Your task to perform on an android device: Open wifi settings Image 0: 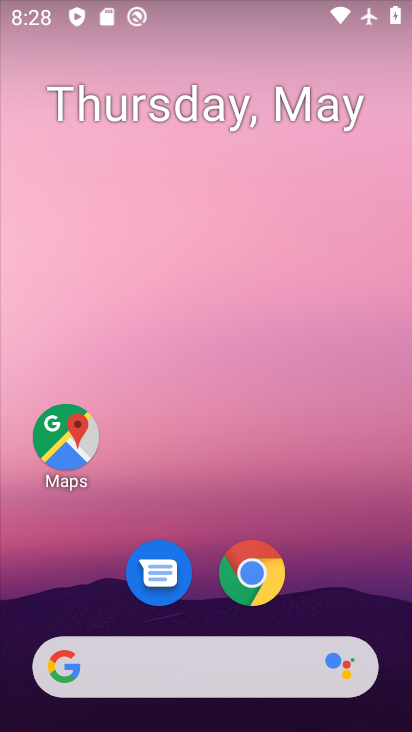
Step 0: drag from (335, 598) to (362, 65)
Your task to perform on an android device: Open wifi settings Image 1: 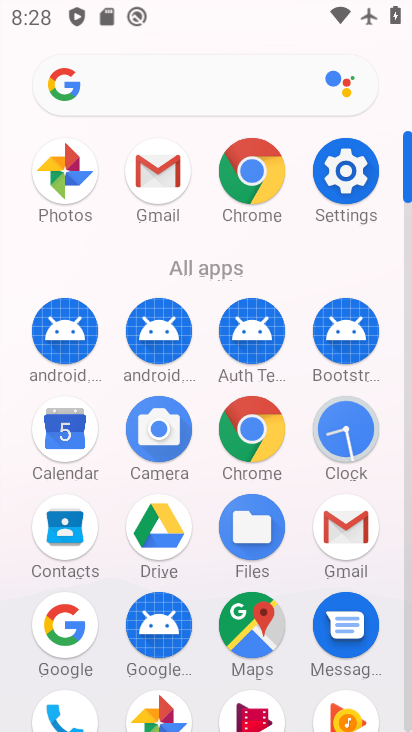
Step 1: click (365, 164)
Your task to perform on an android device: Open wifi settings Image 2: 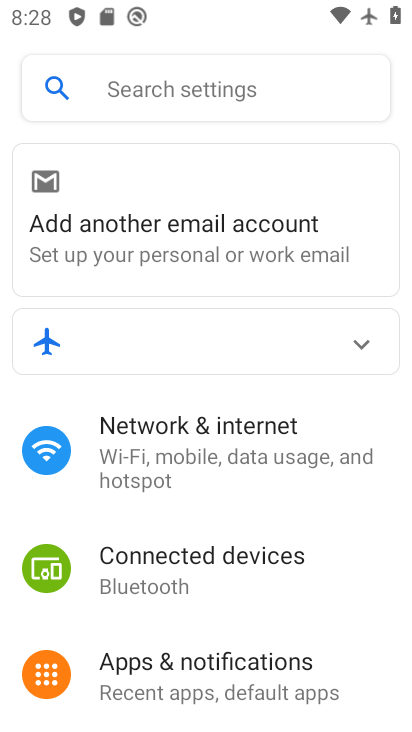
Step 2: click (261, 455)
Your task to perform on an android device: Open wifi settings Image 3: 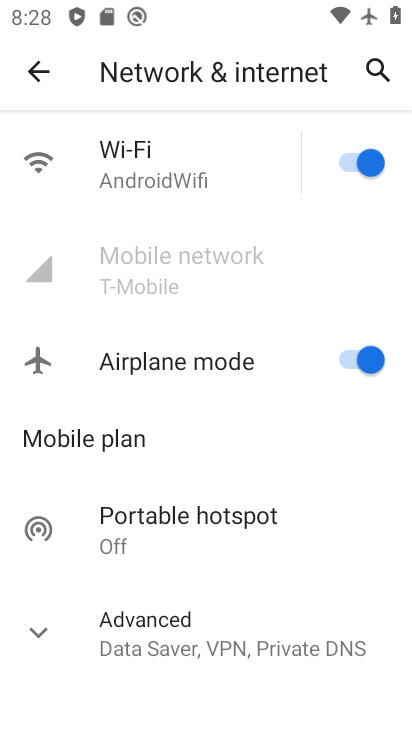
Step 3: click (143, 169)
Your task to perform on an android device: Open wifi settings Image 4: 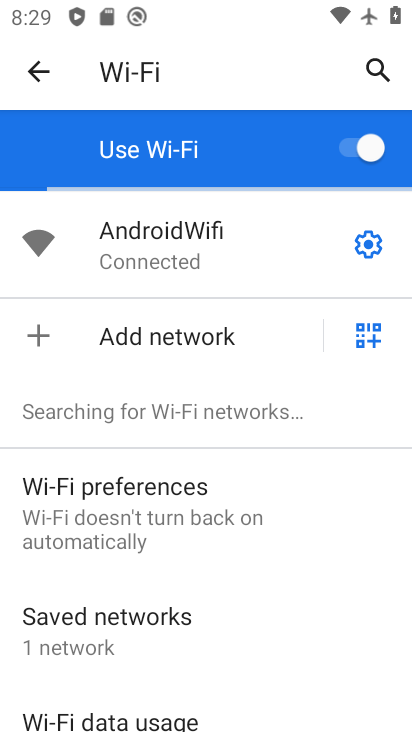
Step 4: task complete